Your task to perform on an android device: Empty the shopping cart on newegg. Search for energizer triple a on newegg, select the first entry, and add it to the cart. Image 0: 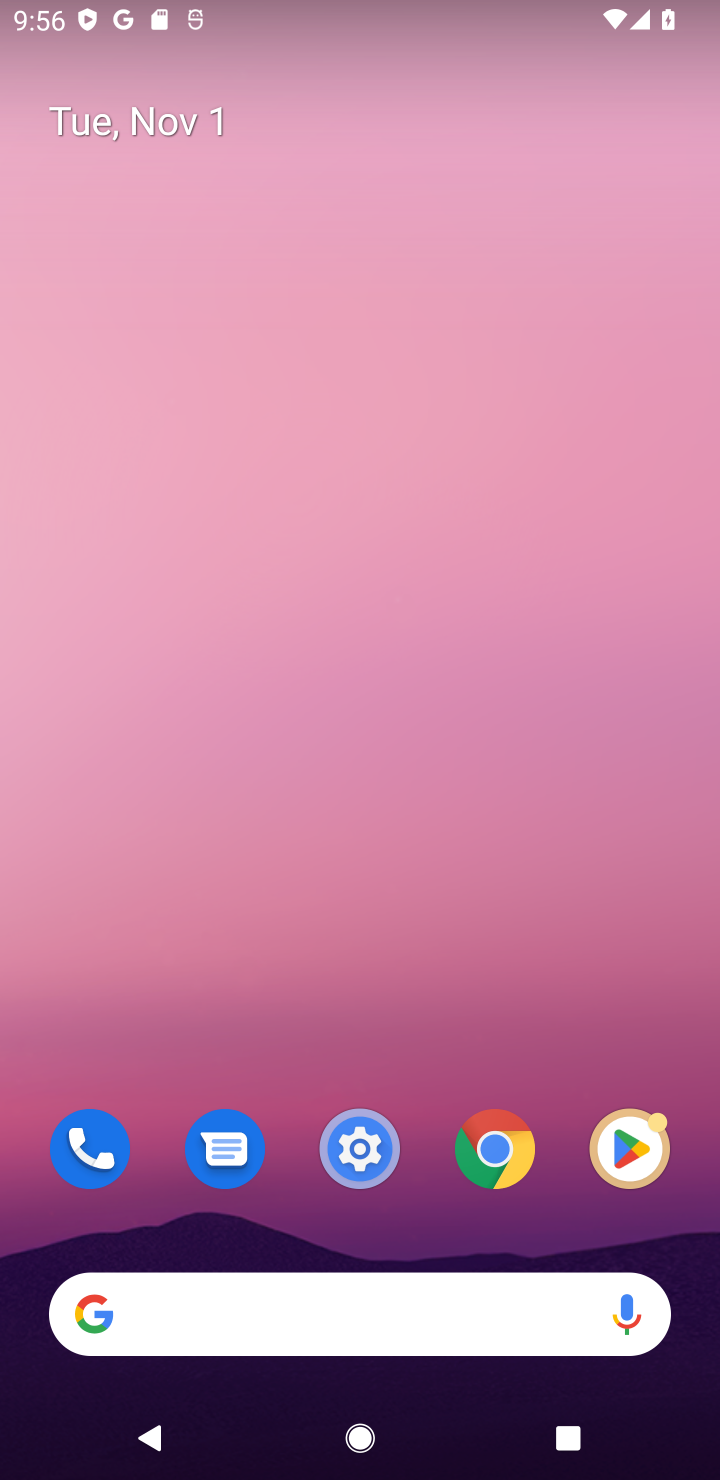
Step 0: press home button
Your task to perform on an android device: Empty the shopping cart on newegg. Search for energizer triple a on newegg, select the first entry, and add it to the cart. Image 1: 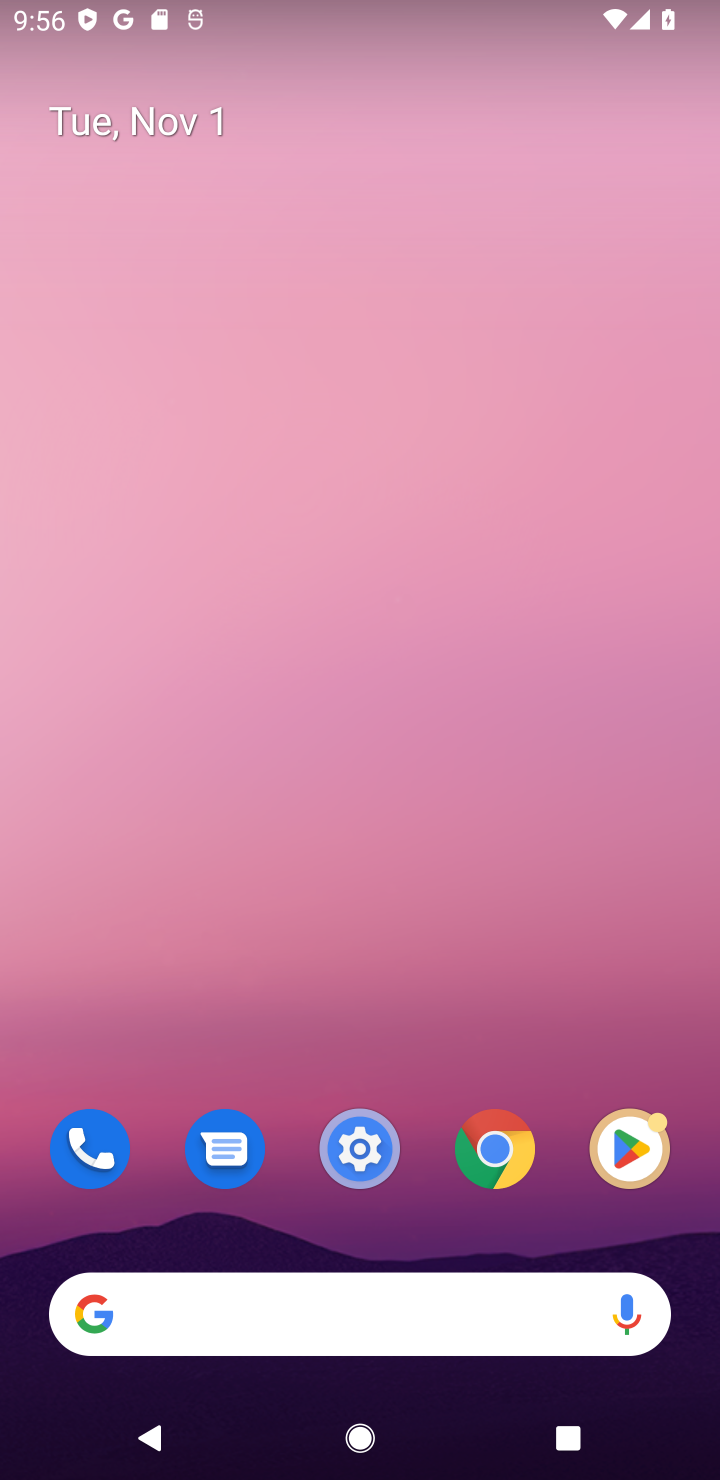
Step 1: click (133, 1311)
Your task to perform on an android device: Empty the shopping cart on newegg. Search for energizer triple a on newegg, select the first entry, and add it to the cart. Image 2: 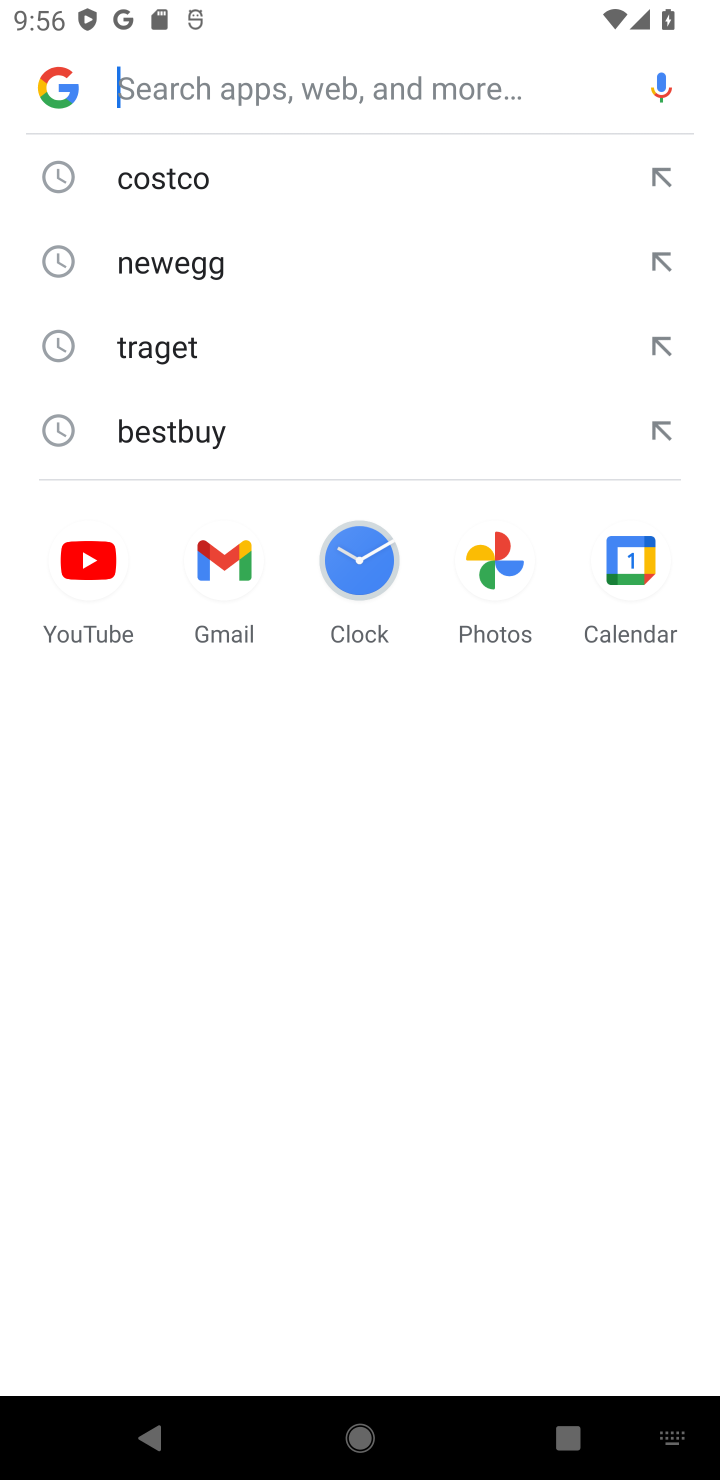
Step 2: type "newegg"
Your task to perform on an android device: Empty the shopping cart on newegg. Search for energizer triple a on newegg, select the first entry, and add it to the cart. Image 3: 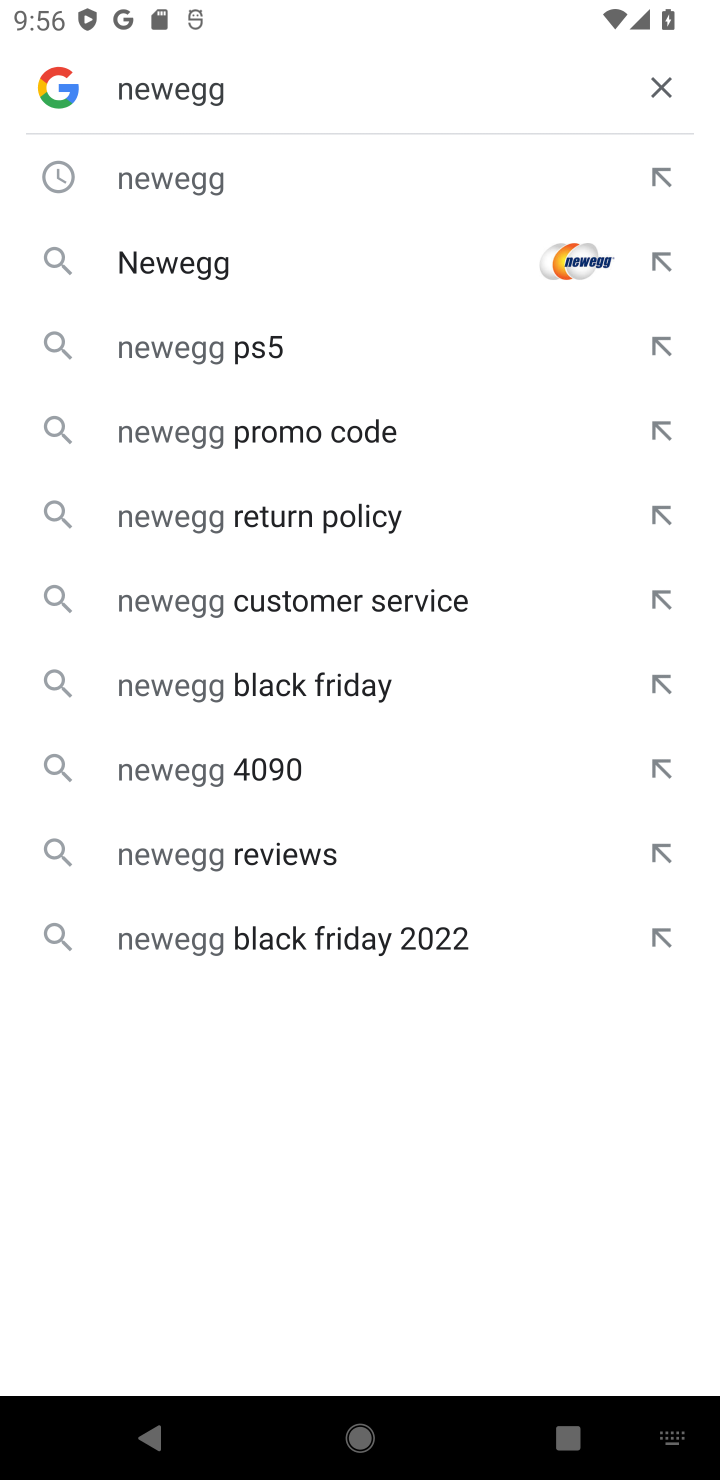
Step 3: press enter
Your task to perform on an android device: Empty the shopping cart on newegg. Search for energizer triple a on newegg, select the first entry, and add it to the cart. Image 4: 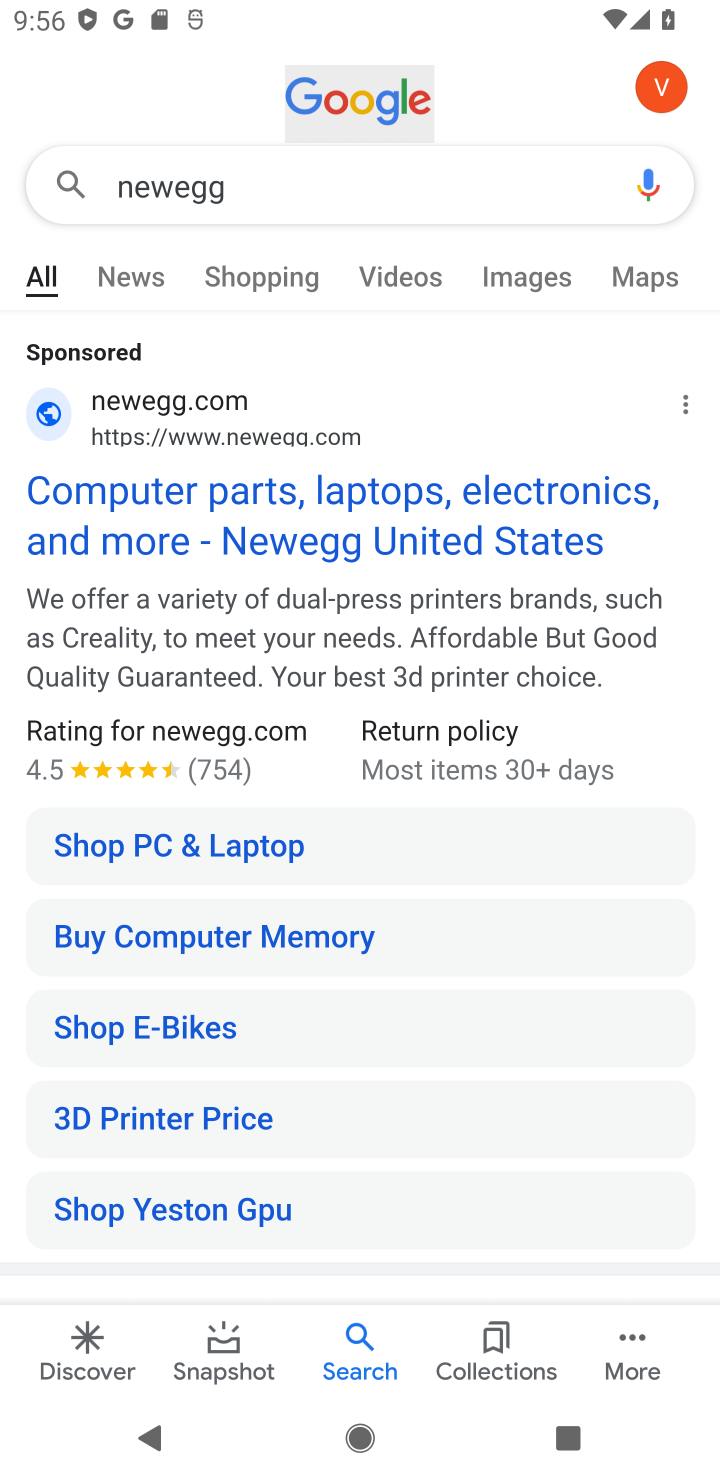
Step 4: drag from (424, 1041) to (453, 458)
Your task to perform on an android device: Empty the shopping cart on newegg. Search for energizer triple a on newegg, select the first entry, and add it to the cart. Image 5: 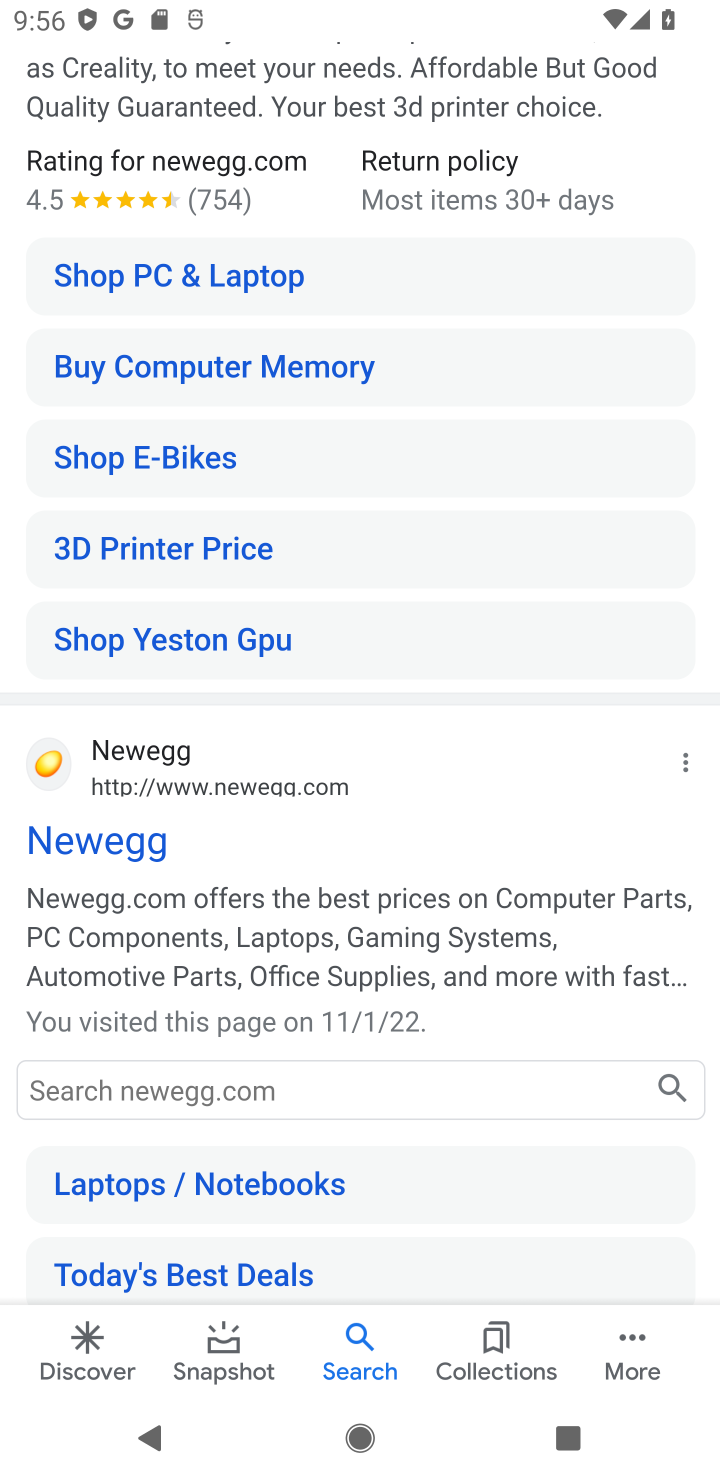
Step 5: click (100, 838)
Your task to perform on an android device: Empty the shopping cart on newegg. Search for energizer triple a on newegg, select the first entry, and add it to the cart. Image 6: 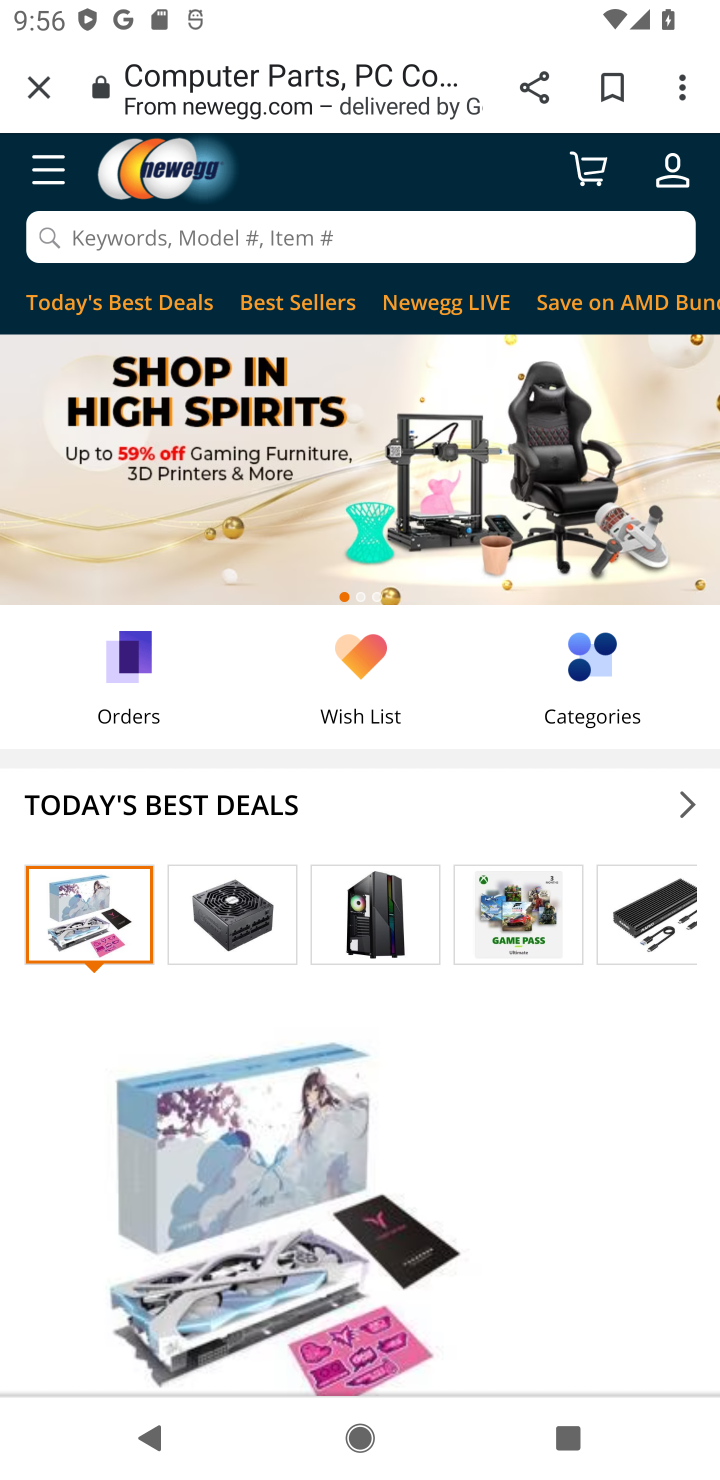
Step 6: click (114, 225)
Your task to perform on an android device: Empty the shopping cart on newegg. Search for energizer triple a on newegg, select the first entry, and add it to the cart. Image 7: 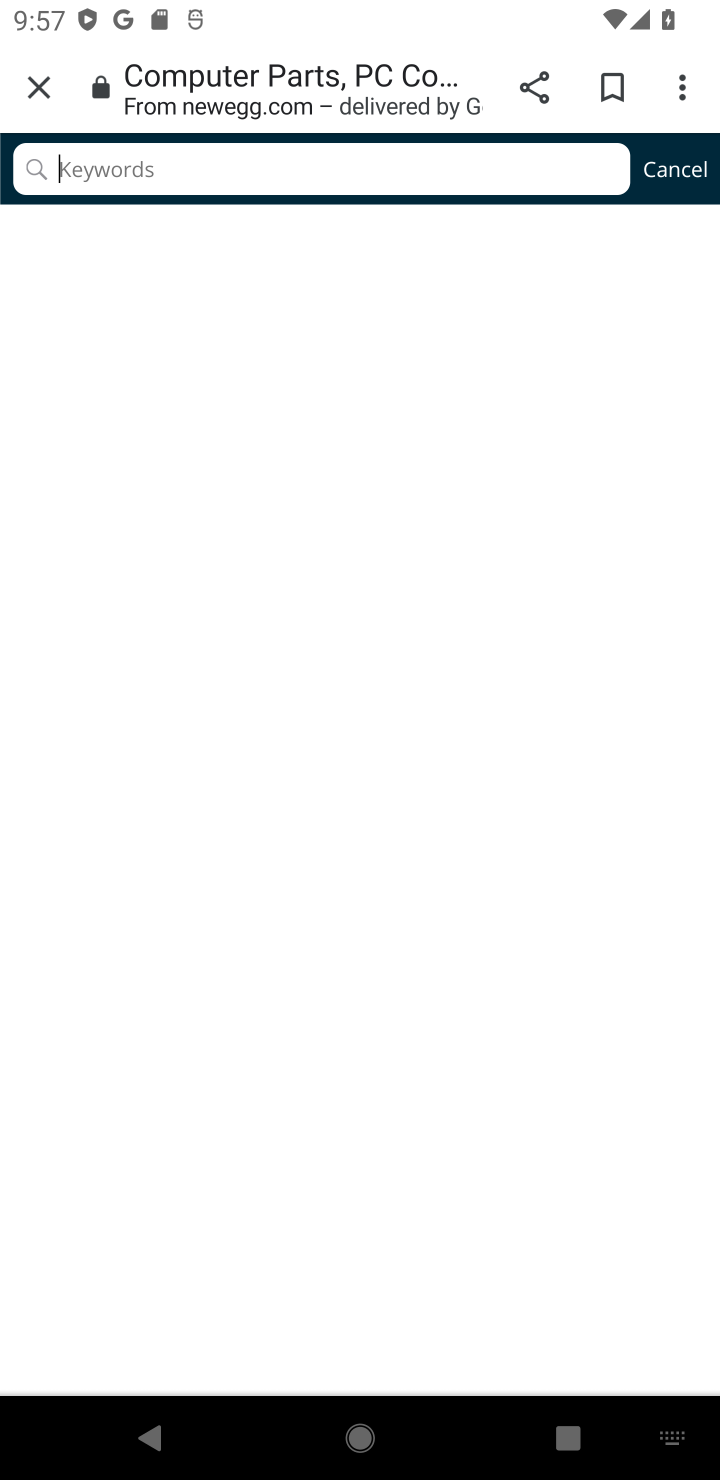
Step 7: type " energizer triple a"
Your task to perform on an android device: Empty the shopping cart on newegg. Search for energizer triple a on newegg, select the first entry, and add it to the cart. Image 8: 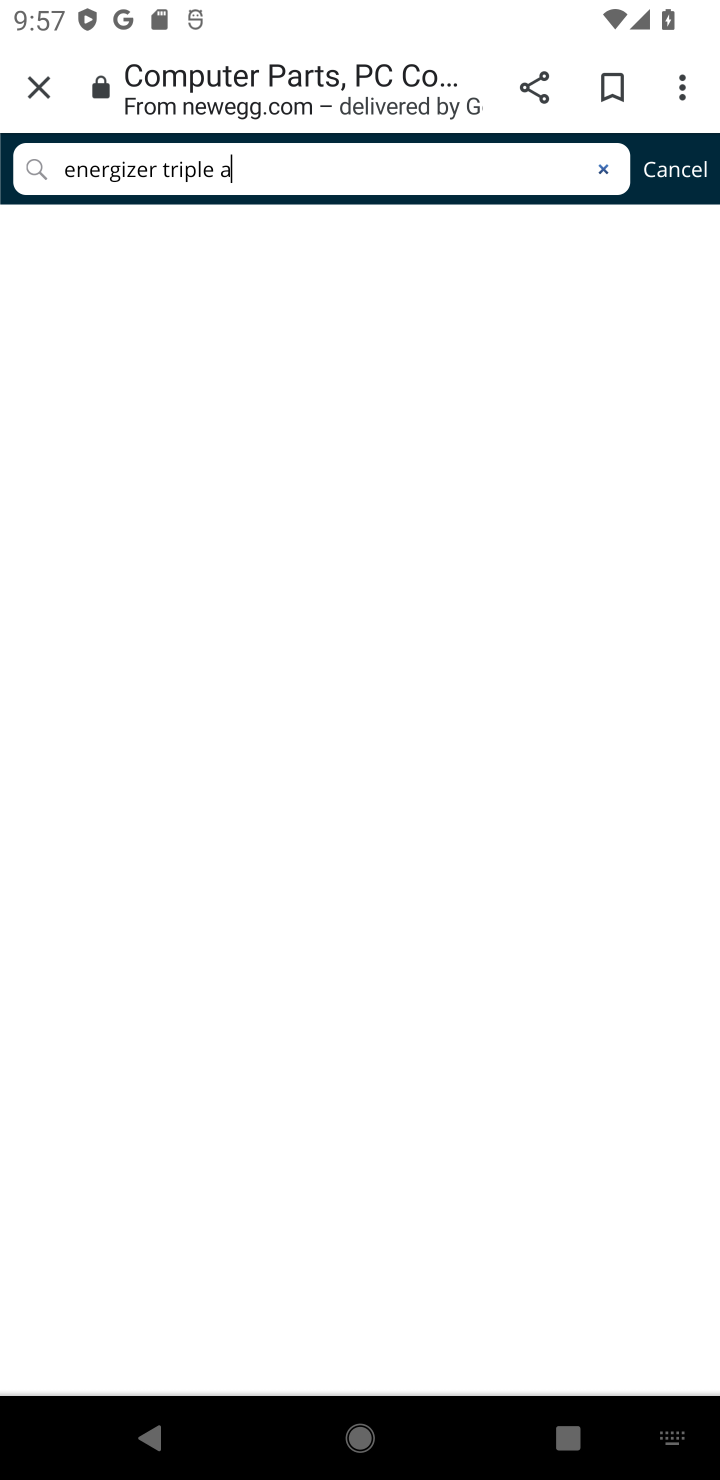
Step 8: press enter
Your task to perform on an android device: Empty the shopping cart on newegg. Search for energizer triple a on newegg, select the first entry, and add it to the cart. Image 9: 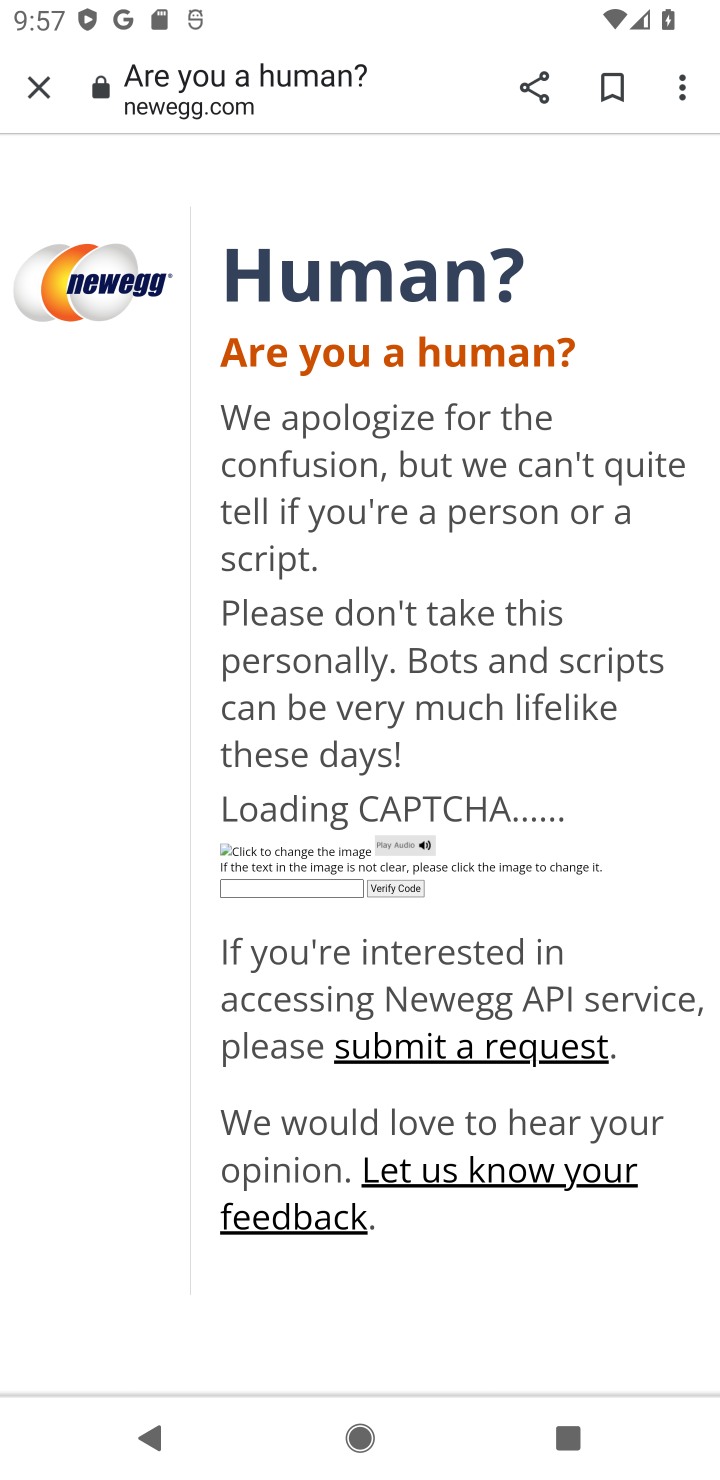
Step 9: task complete